Your task to perform on an android device: Go to network settings Image 0: 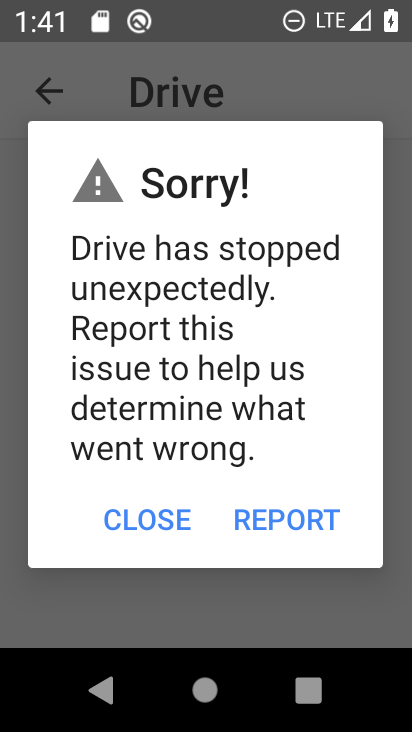
Step 0: press home button
Your task to perform on an android device: Go to network settings Image 1: 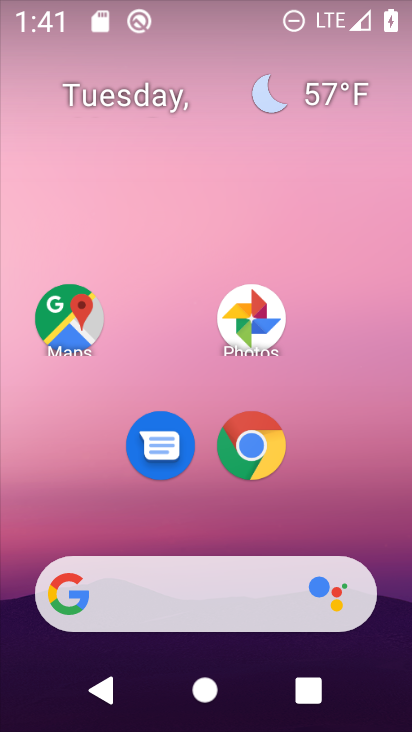
Step 1: drag from (340, 525) to (373, 189)
Your task to perform on an android device: Go to network settings Image 2: 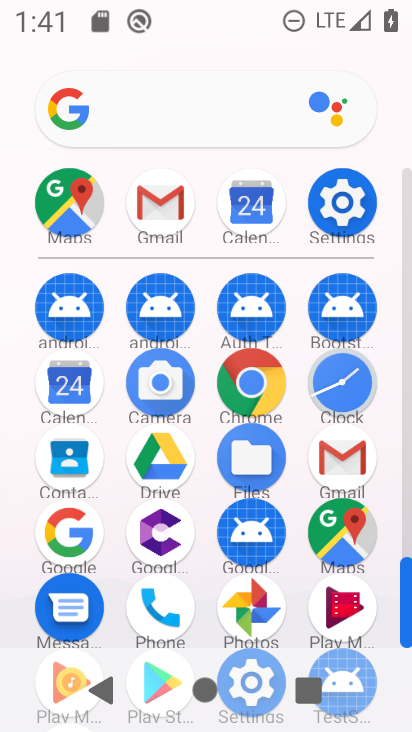
Step 2: click (350, 207)
Your task to perform on an android device: Go to network settings Image 3: 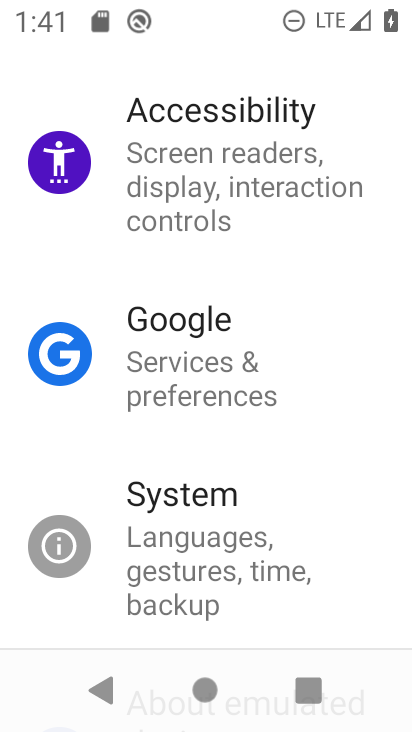
Step 3: drag from (348, 315) to (351, 451)
Your task to perform on an android device: Go to network settings Image 4: 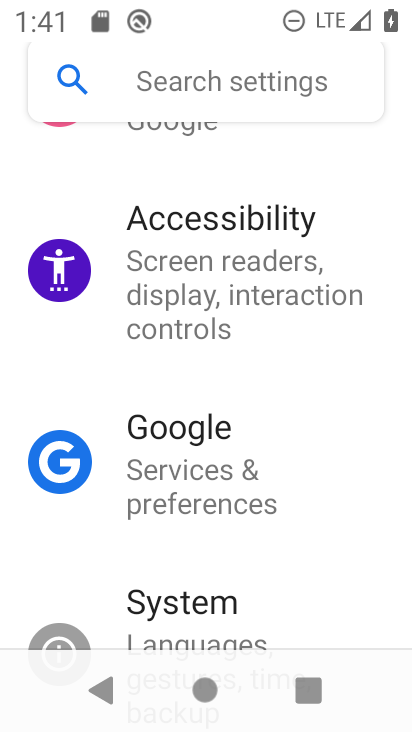
Step 4: drag from (345, 329) to (344, 460)
Your task to perform on an android device: Go to network settings Image 5: 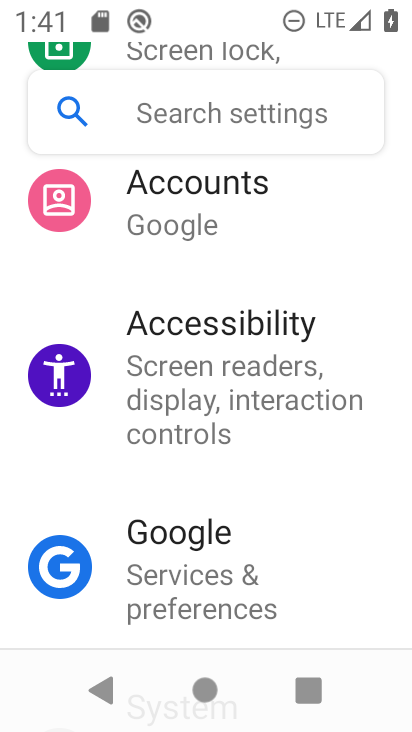
Step 5: drag from (363, 286) to (358, 420)
Your task to perform on an android device: Go to network settings Image 6: 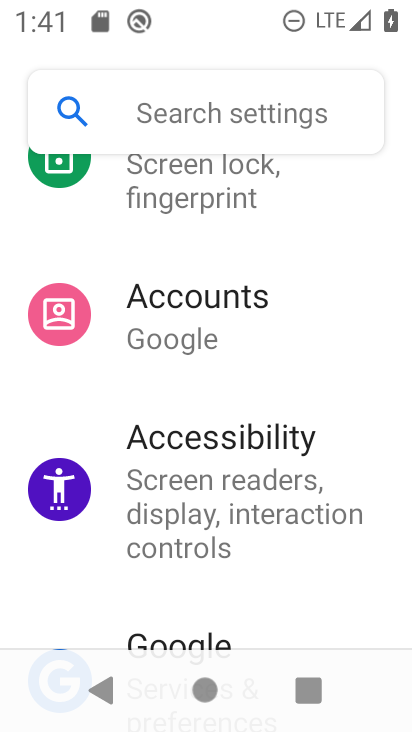
Step 6: drag from (353, 268) to (356, 408)
Your task to perform on an android device: Go to network settings Image 7: 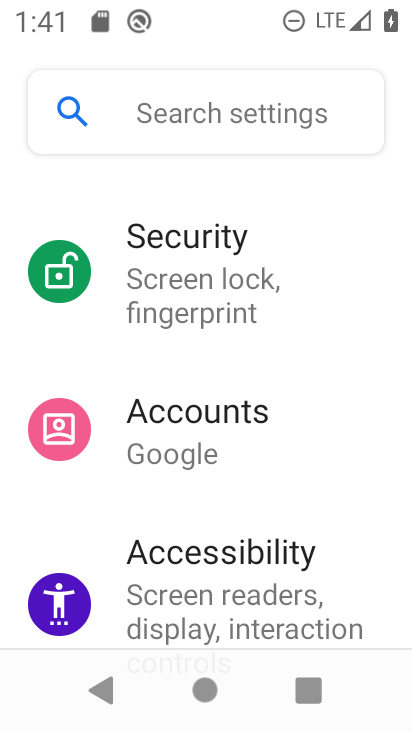
Step 7: drag from (359, 265) to (359, 376)
Your task to perform on an android device: Go to network settings Image 8: 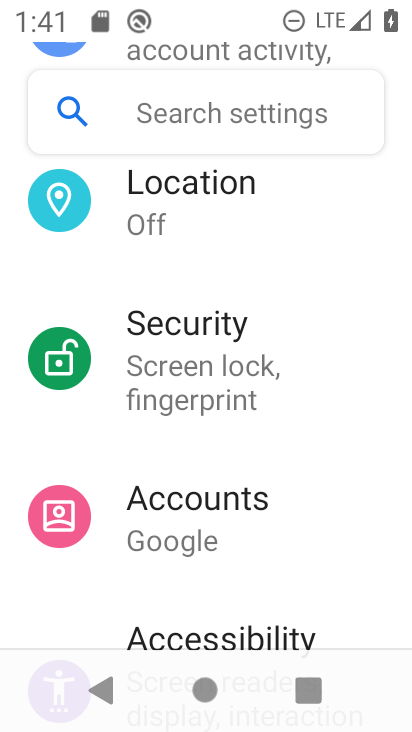
Step 8: drag from (365, 192) to (364, 352)
Your task to perform on an android device: Go to network settings Image 9: 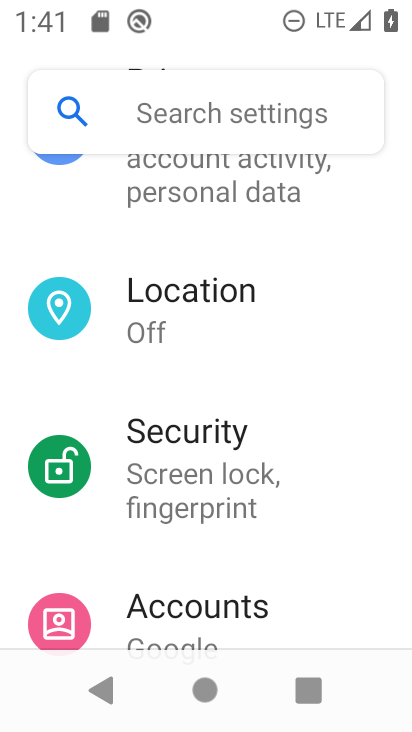
Step 9: drag from (362, 234) to (363, 373)
Your task to perform on an android device: Go to network settings Image 10: 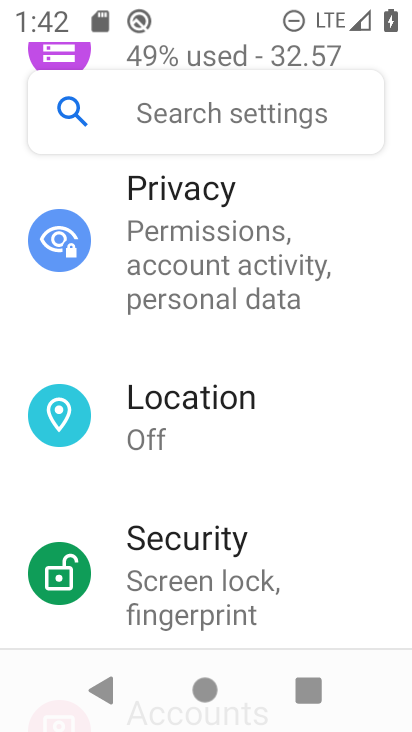
Step 10: drag from (362, 230) to (361, 397)
Your task to perform on an android device: Go to network settings Image 11: 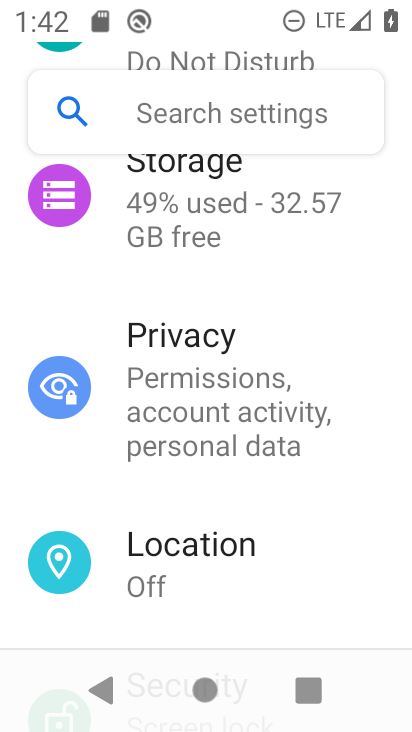
Step 11: drag from (364, 251) to (373, 389)
Your task to perform on an android device: Go to network settings Image 12: 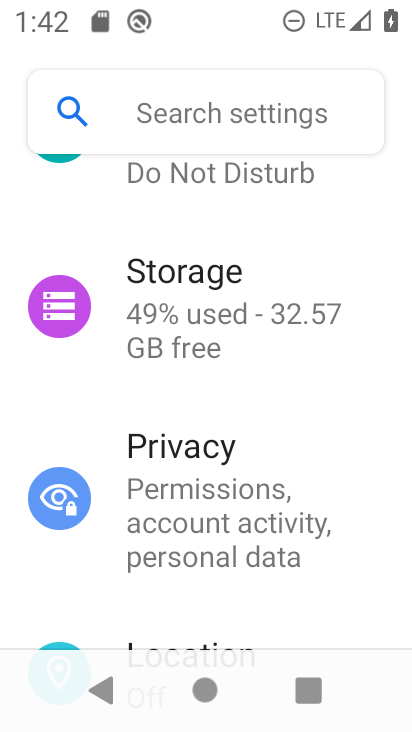
Step 12: drag from (374, 222) to (370, 379)
Your task to perform on an android device: Go to network settings Image 13: 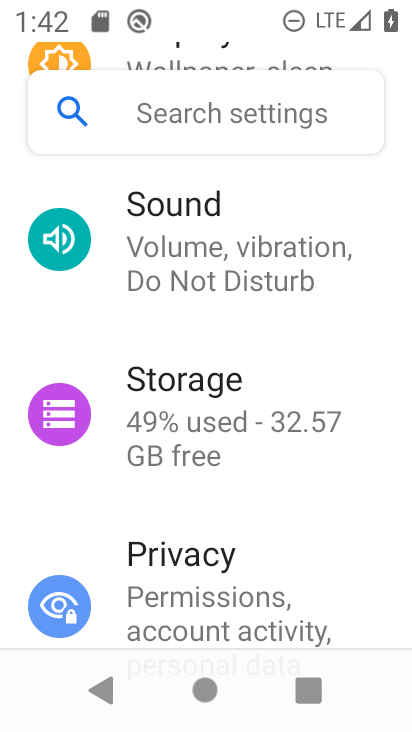
Step 13: drag from (359, 211) to (361, 347)
Your task to perform on an android device: Go to network settings Image 14: 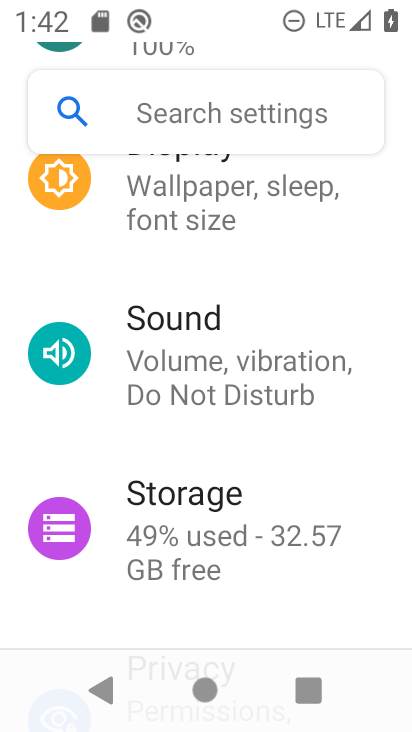
Step 14: drag from (359, 212) to (365, 358)
Your task to perform on an android device: Go to network settings Image 15: 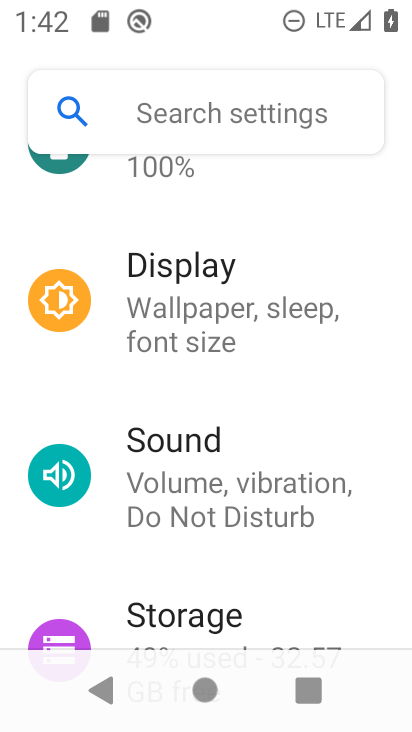
Step 15: drag from (364, 221) to (364, 363)
Your task to perform on an android device: Go to network settings Image 16: 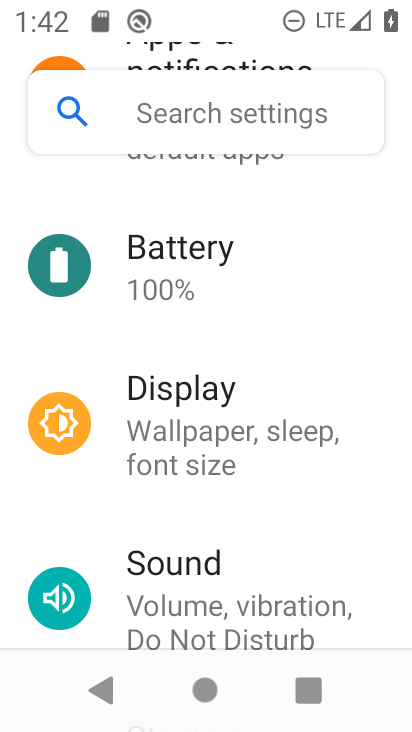
Step 16: drag from (360, 215) to (361, 357)
Your task to perform on an android device: Go to network settings Image 17: 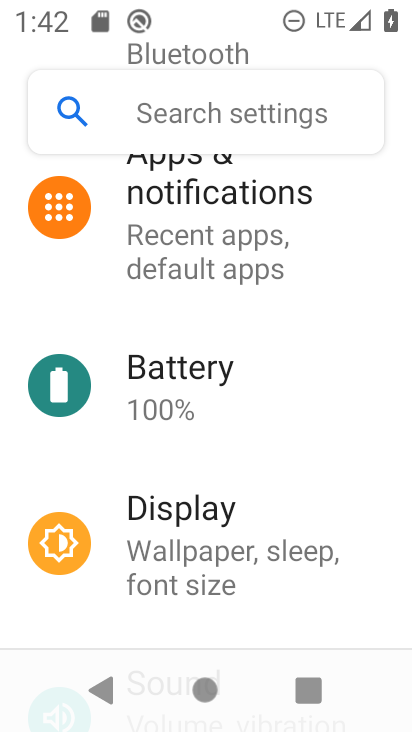
Step 17: drag from (353, 195) to (348, 361)
Your task to perform on an android device: Go to network settings Image 18: 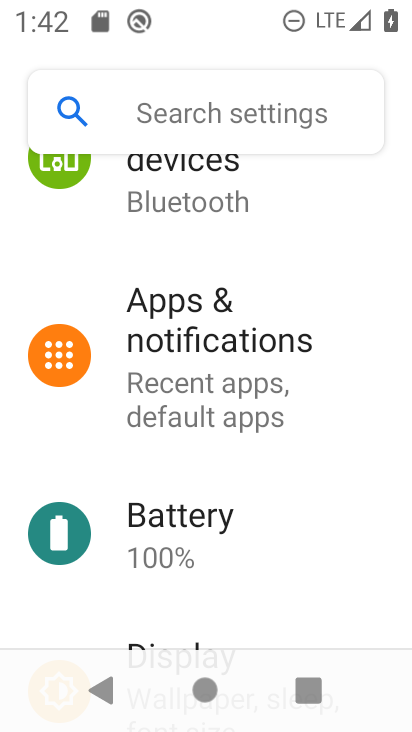
Step 18: drag from (345, 208) to (341, 352)
Your task to perform on an android device: Go to network settings Image 19: 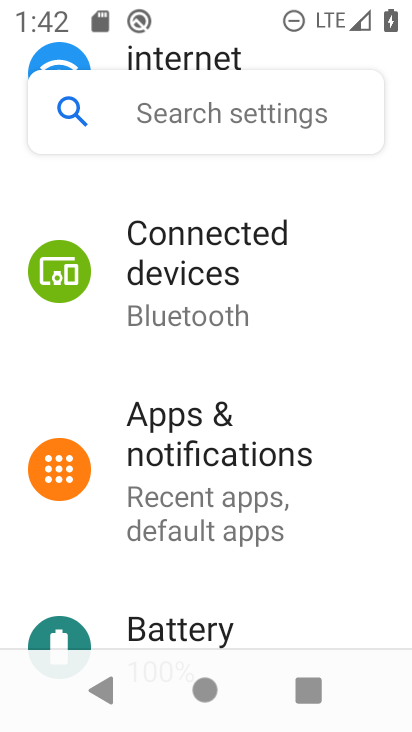
Step 19: drag from (338, 179) to (341, 348)
Your task to perform on an android device: Go to network settings Image 20: 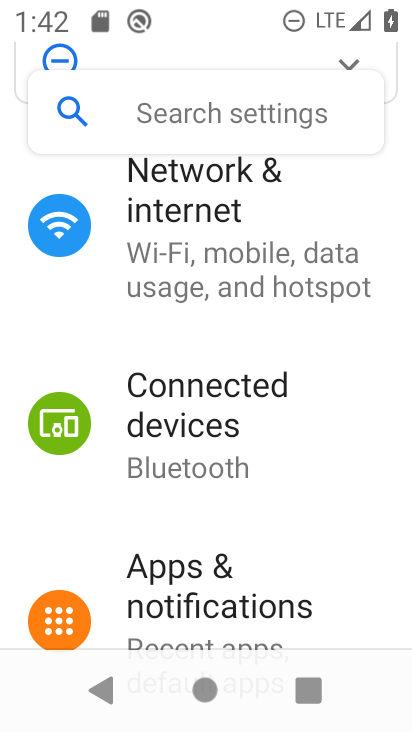
Step 20: click (242, 219)
Your task to perform on an android device: Go to network settings Image 21: 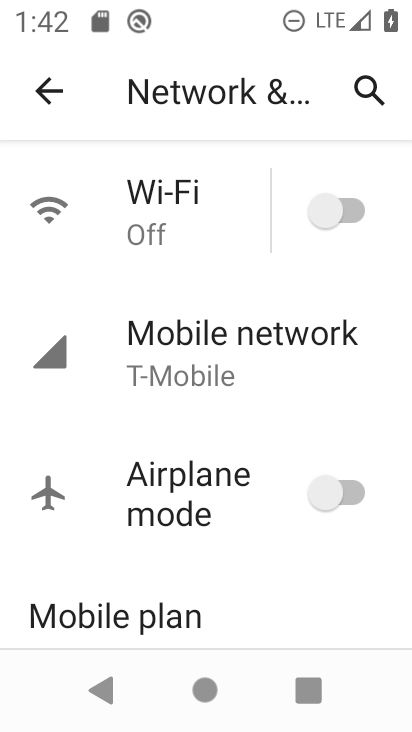
Step 21: task complete